Your task to perform on an android device: Go to Amazon Image 0: 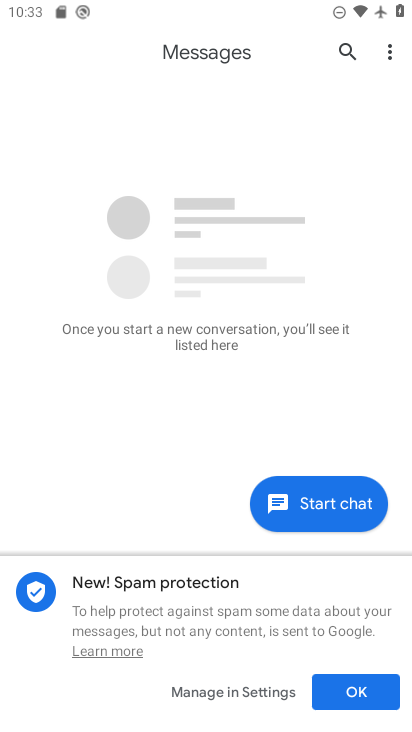
Step 0: press home button
Your task to perform on an android device: Go to Amazon Image 1: 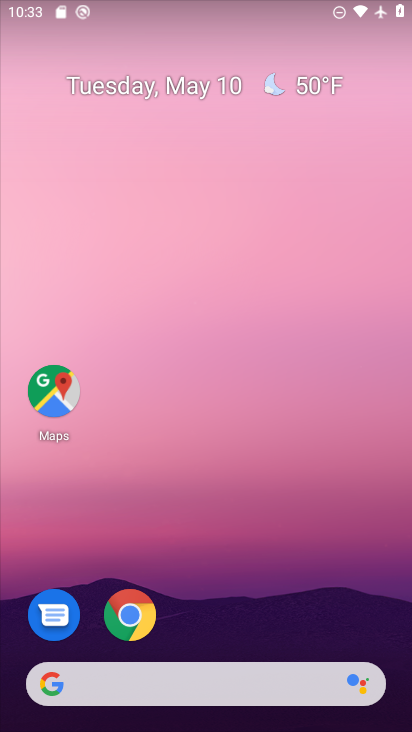
Step 1: click (127, 614)
Your task to perform on an android device: Go to Amazon Image 2: 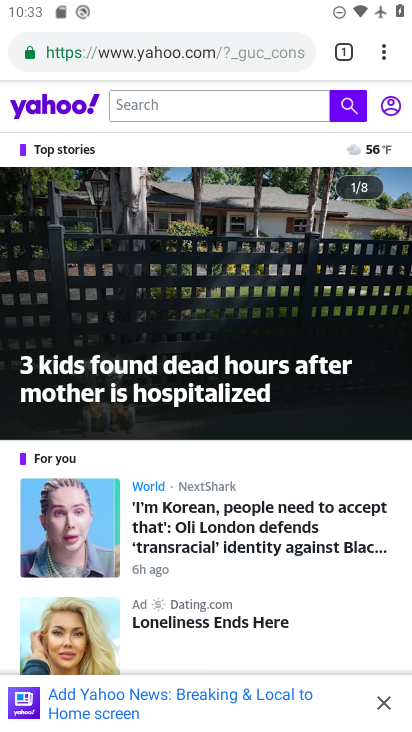
Step 2: click (164, 50)
Your task to perform on an android device: Go to Amazon Image 3: 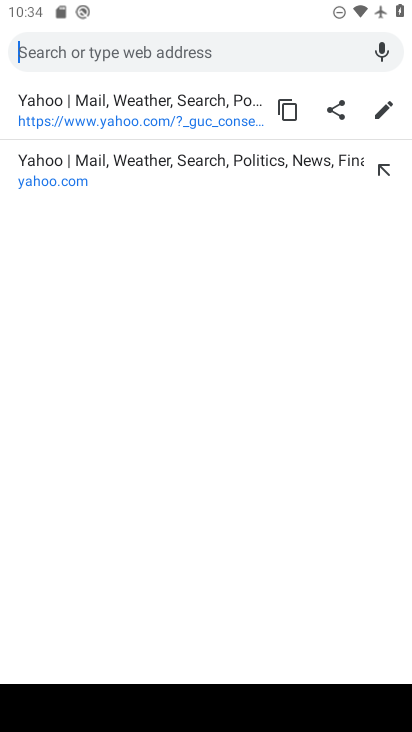
Step 3: type "amazon"
Your task to perform on an android device: Go to Amazon Image 4: 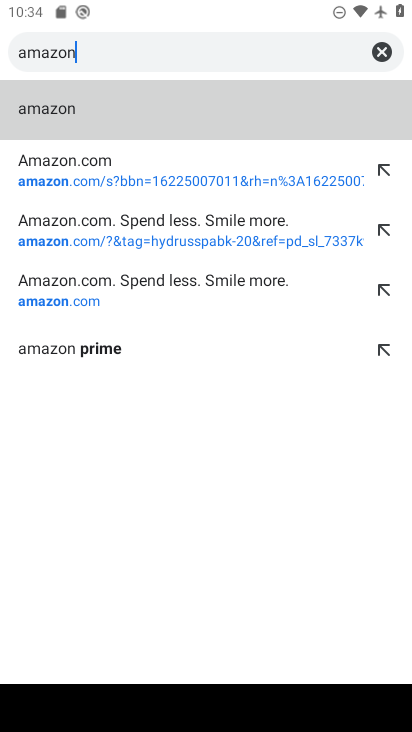
Step 4: click (58, 117)
Your task to perform on an android device: Go to Amazon Image 5: 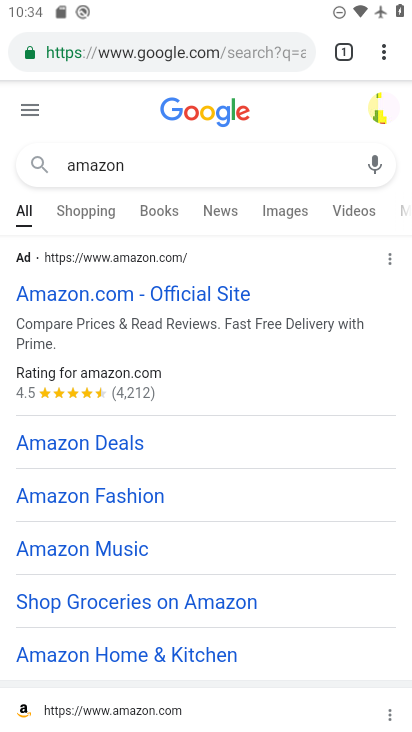
Step 5: click (82, 301)
Your task to perform on an android device: Go to Amazon Image 6: 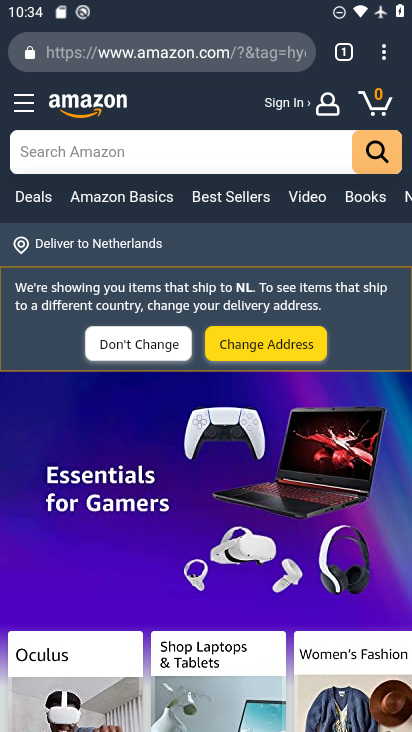
Step 6: task complete